Your task to perform on an android device: change text size in settings app Image 0: 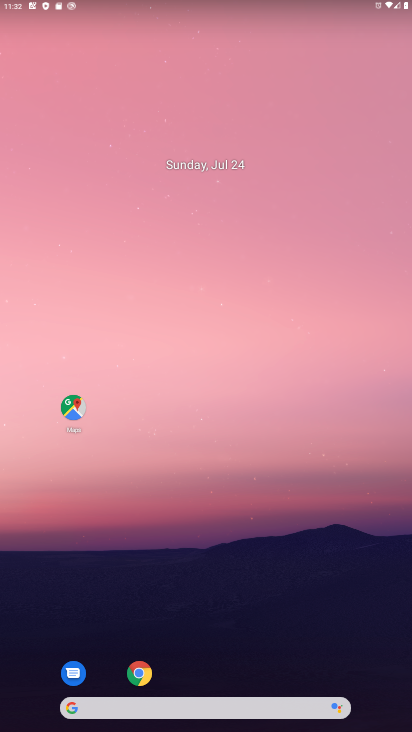
Step 0: drag from (318, 592) to (263, 156)
Your task to perform on an android device: change text size in settings app Image 1: 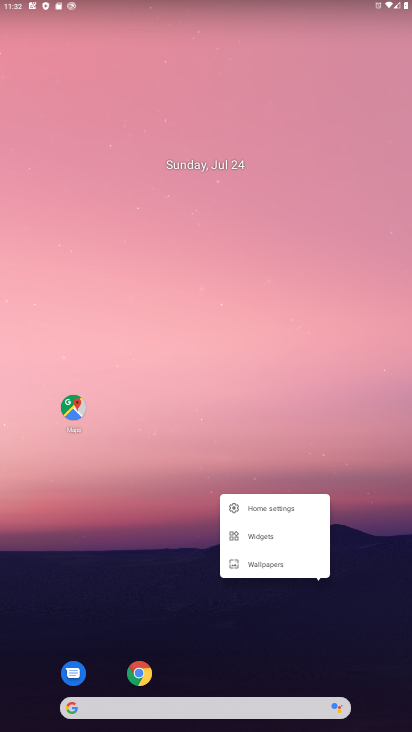
Step 1: click (302, 670)
Your task to perform on an android device: change text size in settings app Image 2: 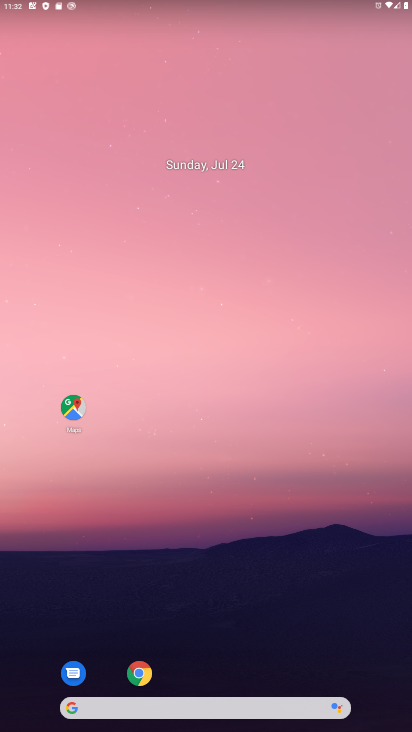
Step 2: drag from (298, 664) to (241, 74)
Your task to perform on an android device: change text size in settings app Image 3: 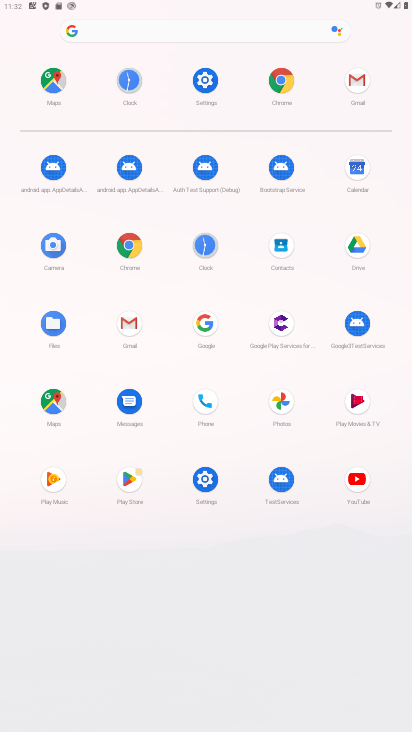
Step 3: click (198, 79)
Your task to perform on an android device: change text size in settings app Image 4: 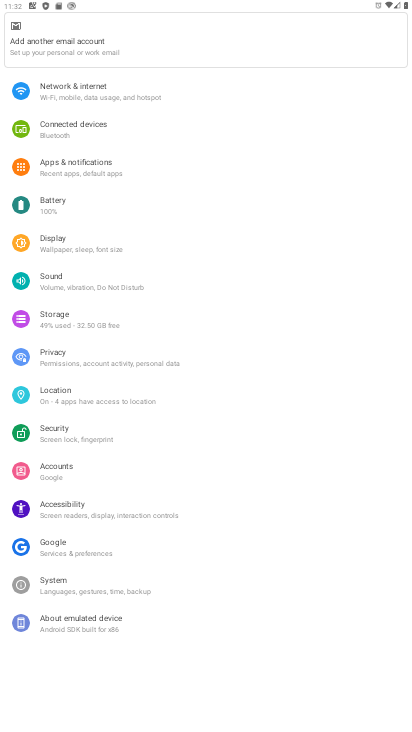
Step 4: click (86, 239)
Your task to perform on an android device: change text size in settings app Image 5: 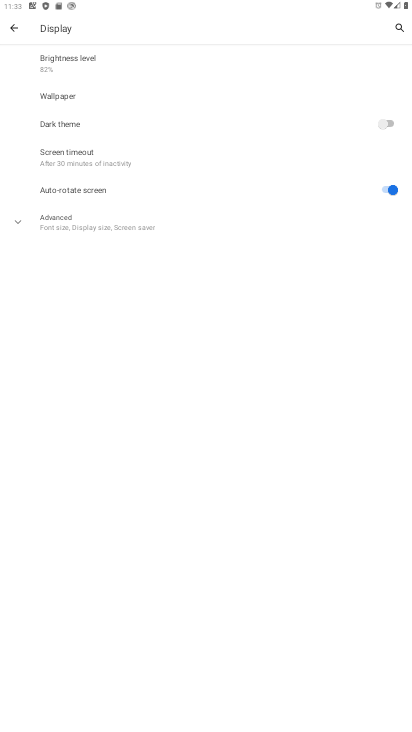
Step 5: click (109, 224)
Your task to perform on an android device: change text size in settings app Image 6: 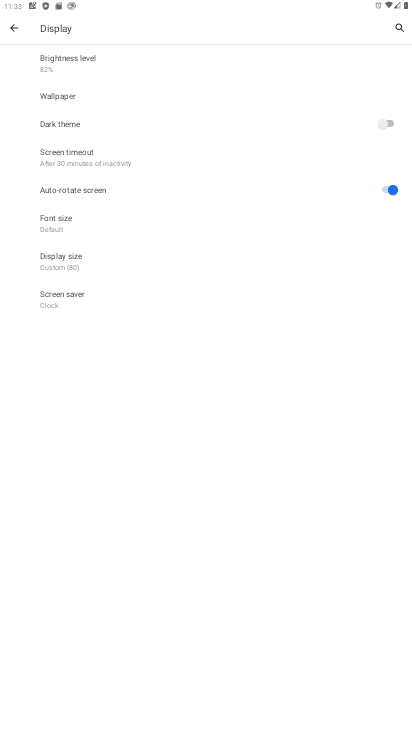
Step 6: click (44, 229)
Your task to perform on an android device: change text size in settings app Image 7: 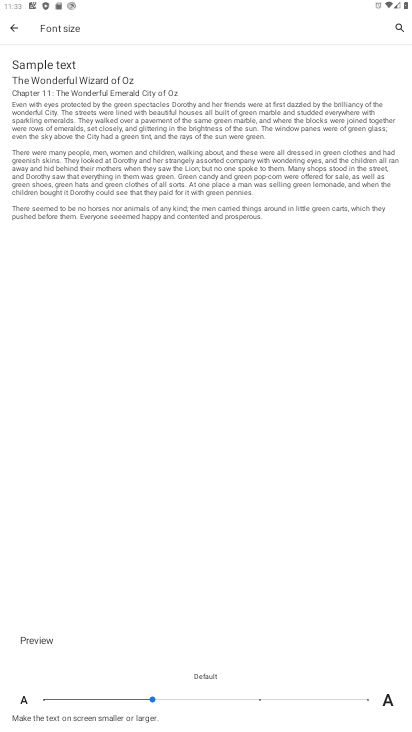
Step 7: click (47, 706)
Your task to perform on an android device: change text size in settings app Image 8: 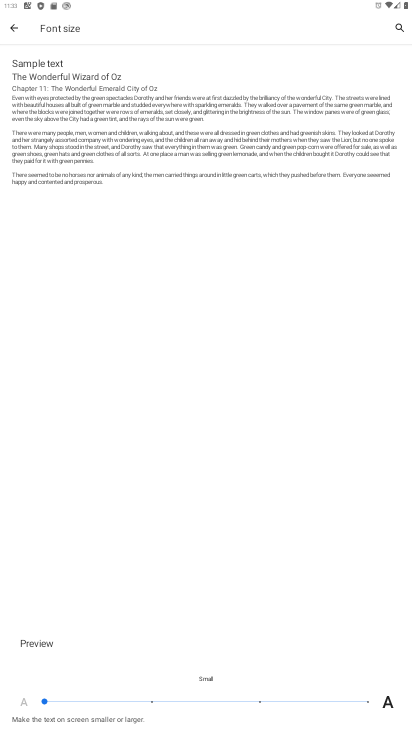
Step 8: task complete